Your task to perform on an android device: Open notification settings Image 0: 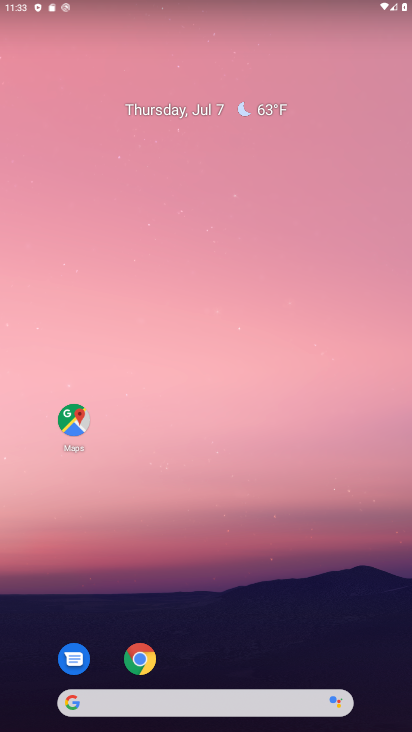
Step 0: drag from (246, 570) to (289, 6)
Your task to perform on an android device: Open notification settings Image 1: 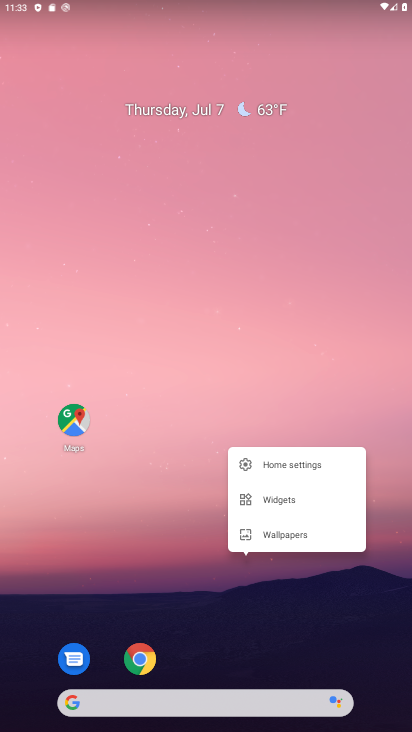
Step 1: click (236, 629)
Your task to perform on an android device: Open notification settings Image 2: 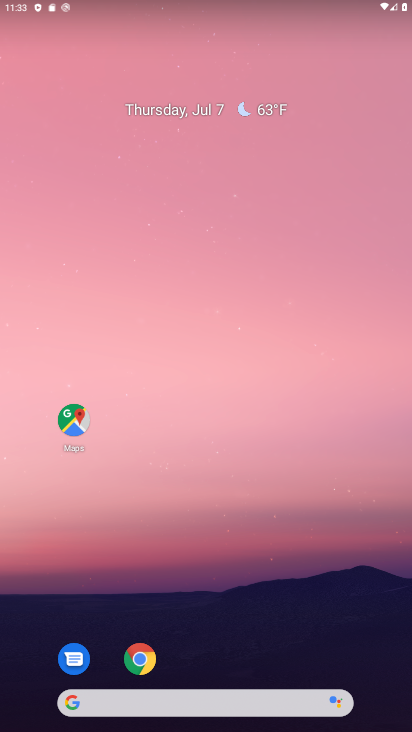
Step 2: drag from (226, 638) to (257, 14)
Your task to perform on an android device: Open notification settings Image 3: 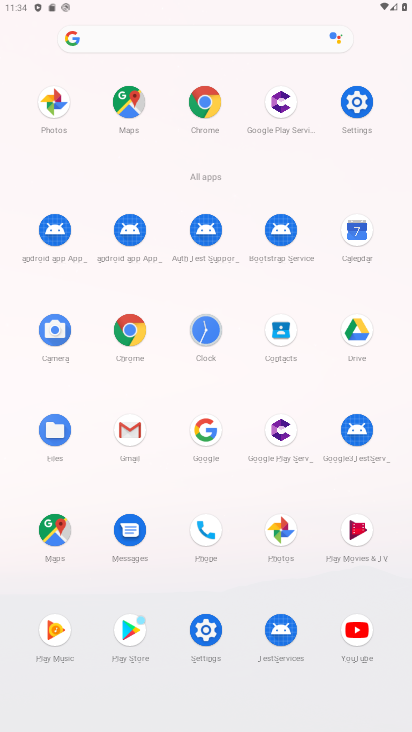
Step 3: click (208, 634)
Your task to perform on an android device: Open notification settings Image 4: 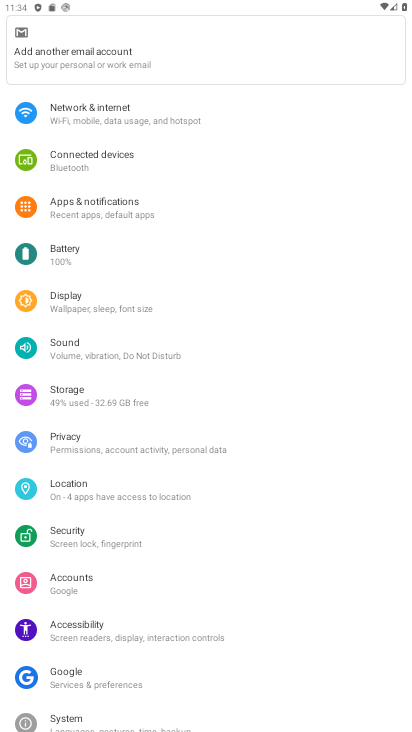
Step 4: click (116, 216)
Your task to perform on an android device: Open notification settings Image 5: 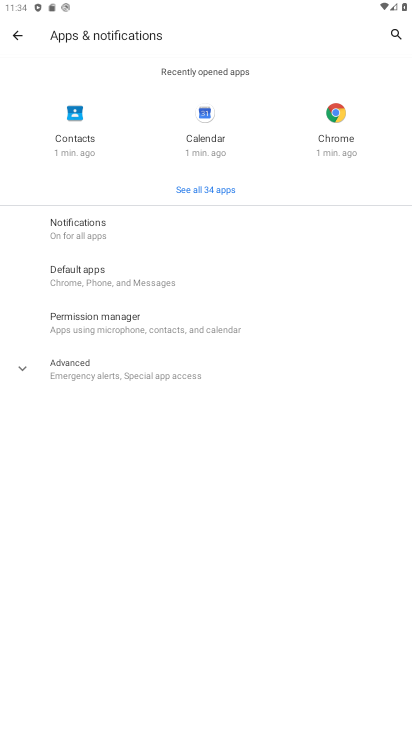
Step 5: click (106, 223)
Your task to perform on an android device: Open notification settings Image 6: 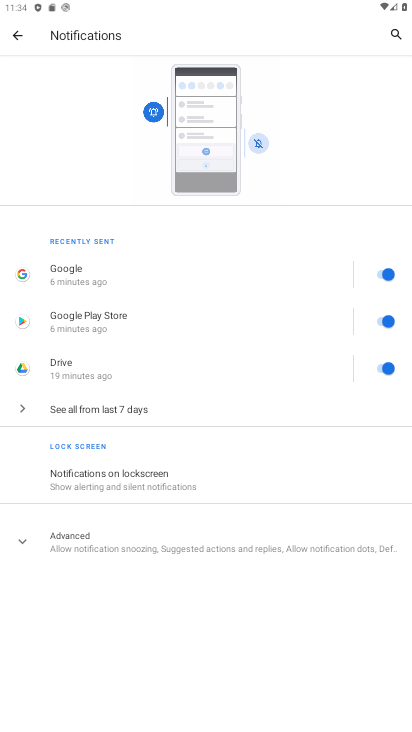
Step 6: task complete